Your task to perform on an android device: turn on wifi Image 0: 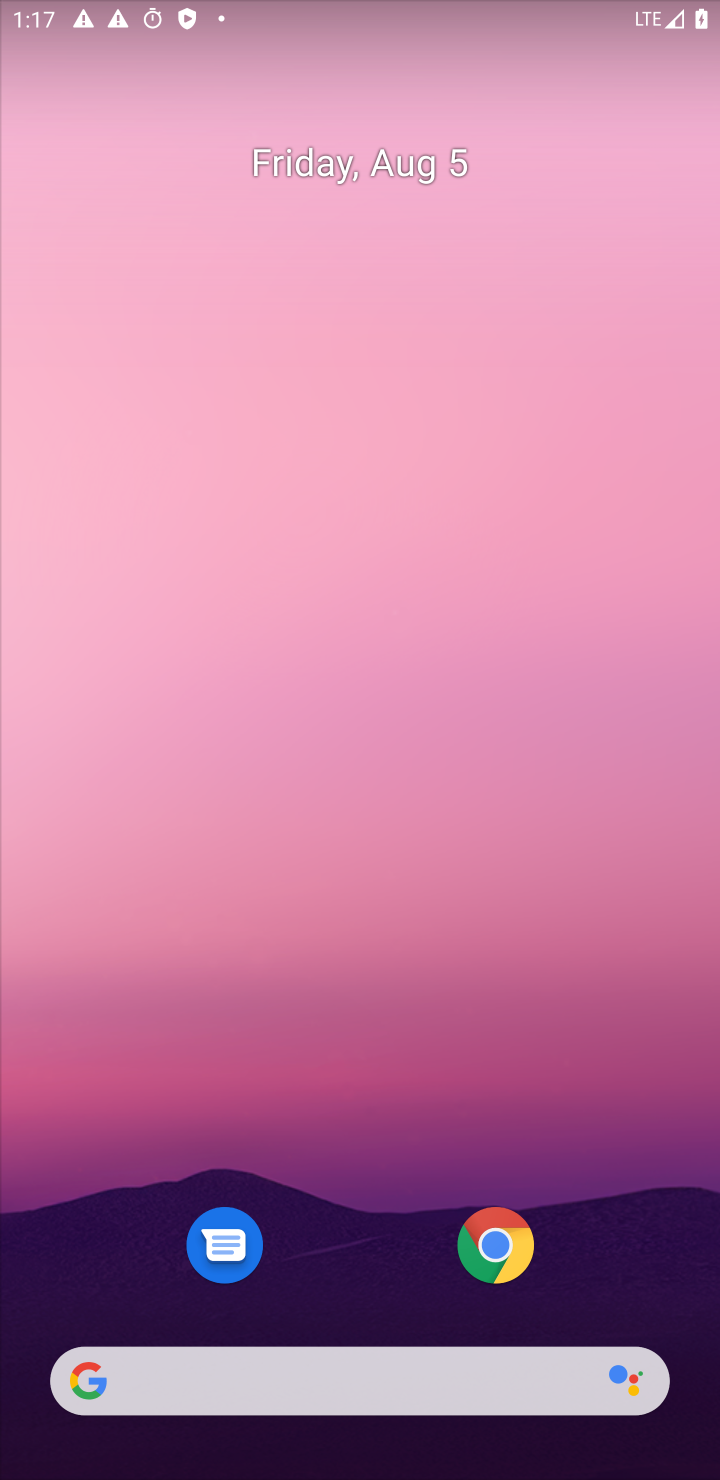
Step 0: drag from (389, 178) to (540, 1201)
Your task to perform on an android device: turn on wifi Image 1: 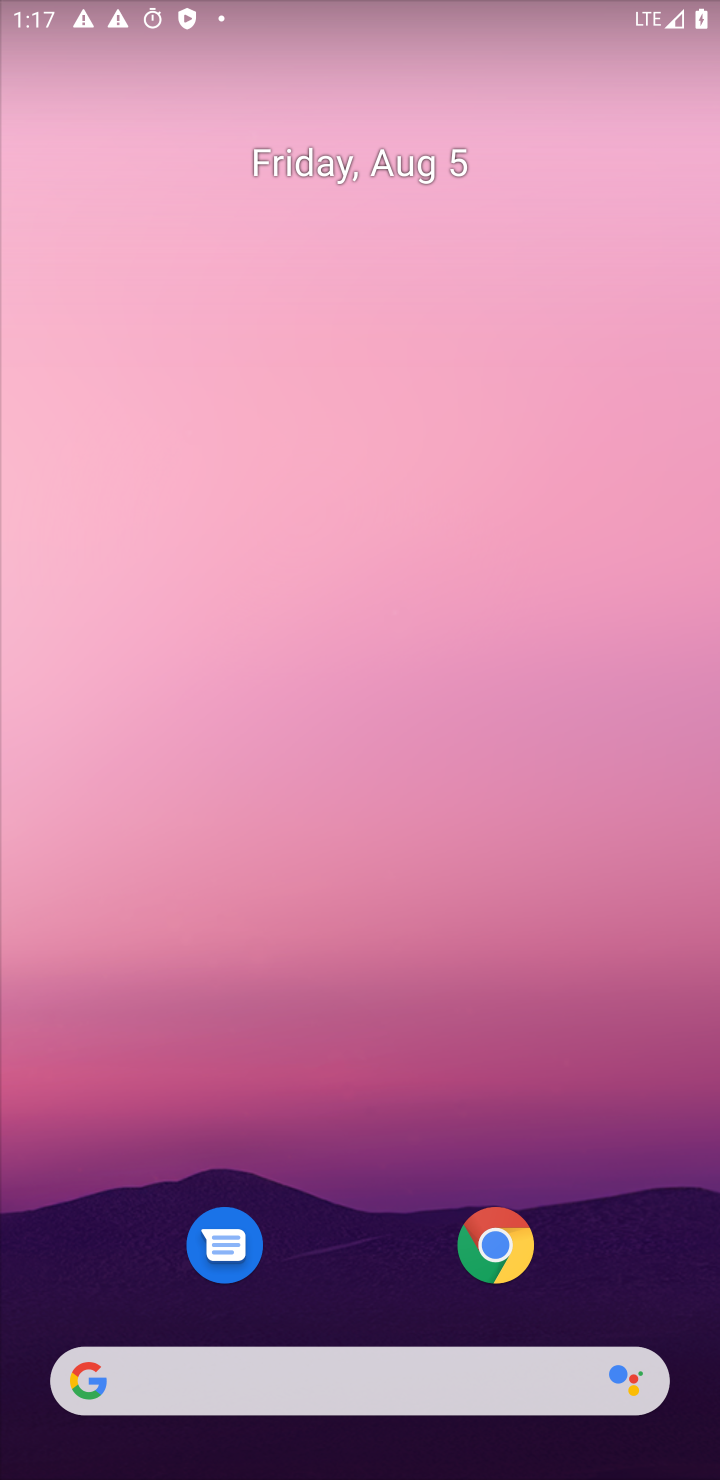
Step 1: click (387, 1085)
Your task to perform on an android device: turn on wifi Image 2: 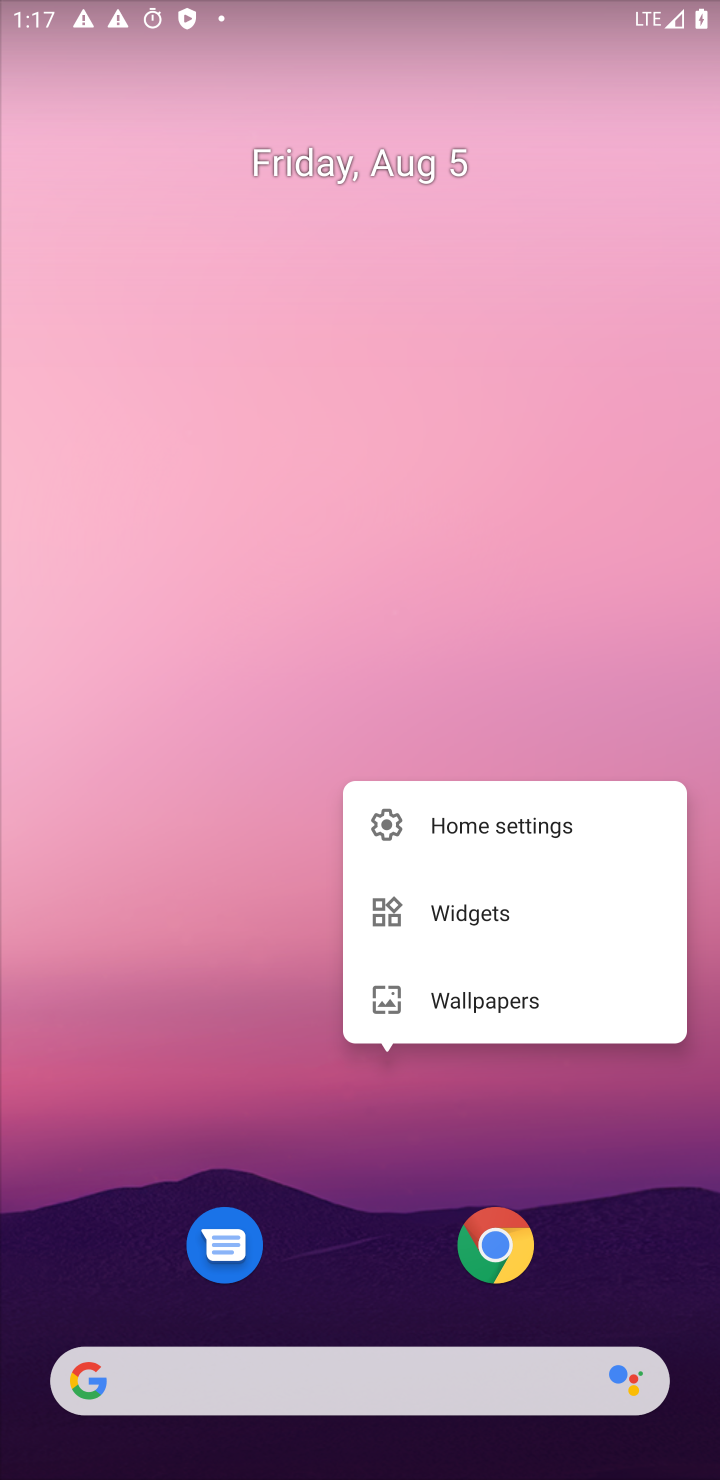
Step 2: drag from (392, 2) to (153, 882)
Your task to perform on an android device: turn on wifi Image 3: 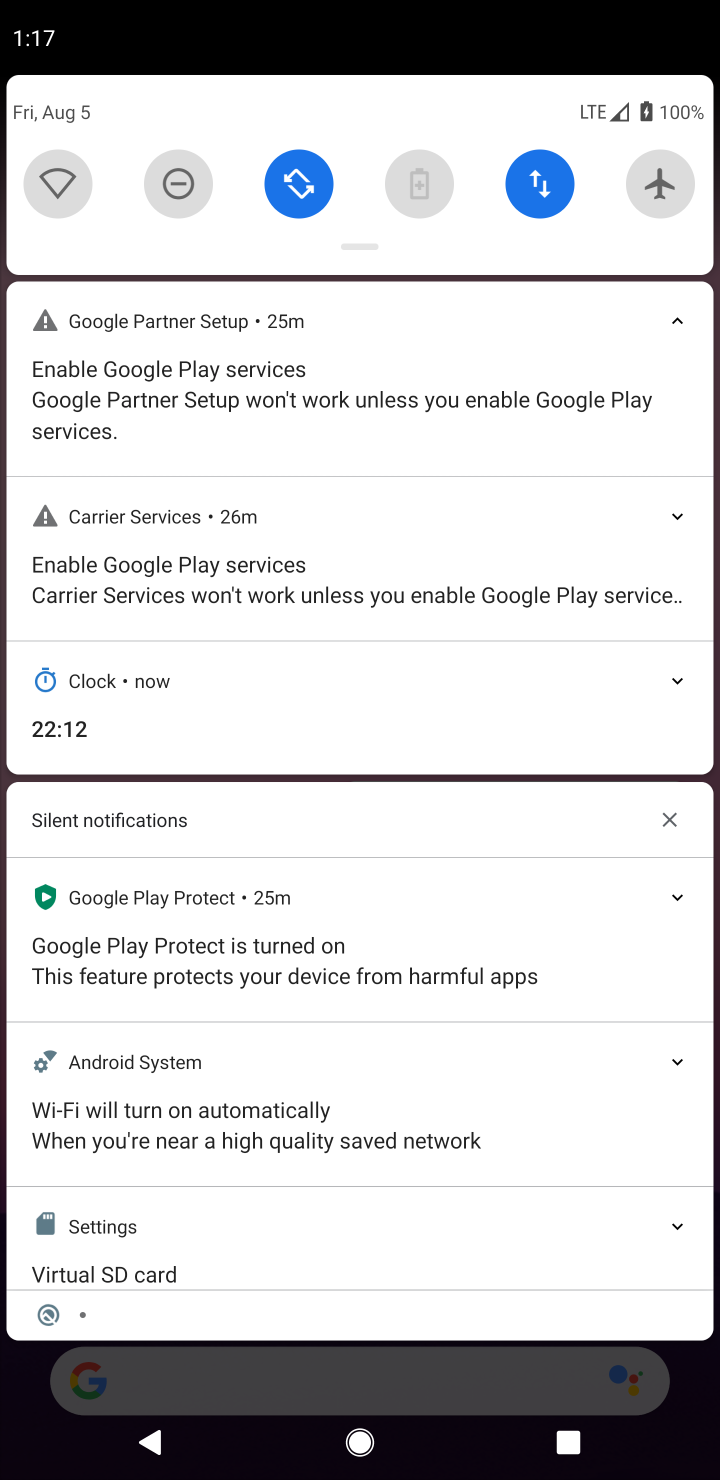
Step 3: click (37, 184)
Your task to perform on an android device: turn on wifi Image 4: 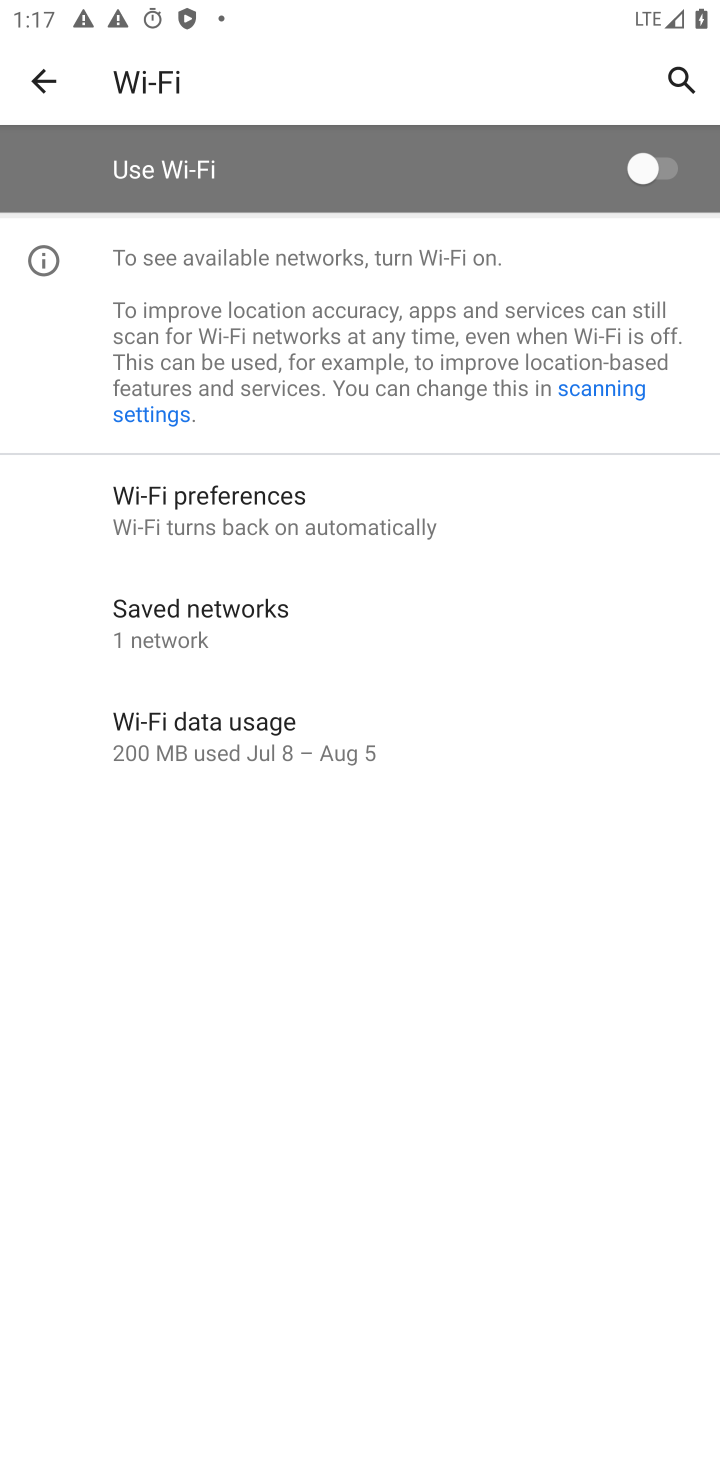
Step 4: click (633, 159)
Your task to perform on an android device: turn on wifi Image 5: 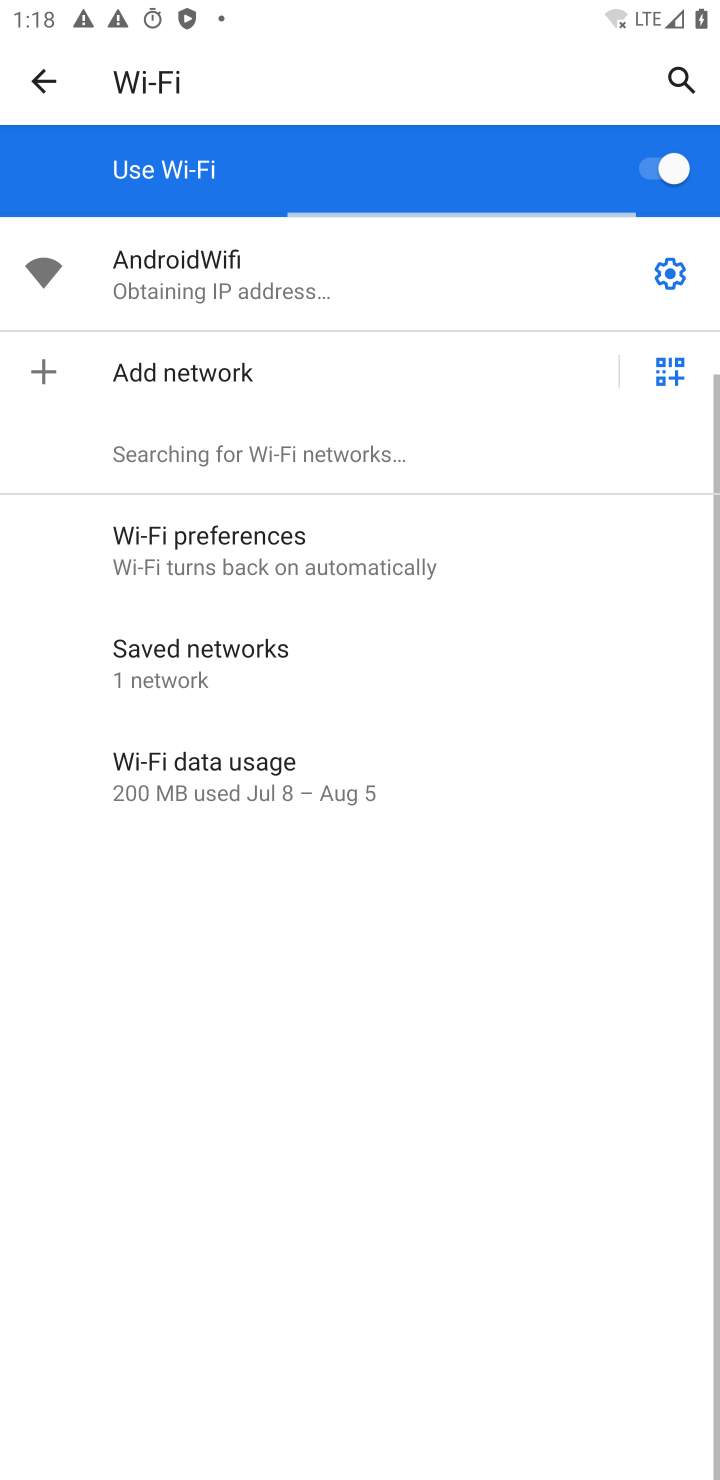
Step 5: task complete